Your task to perform on an android device: change the clock display to analog Image 0: 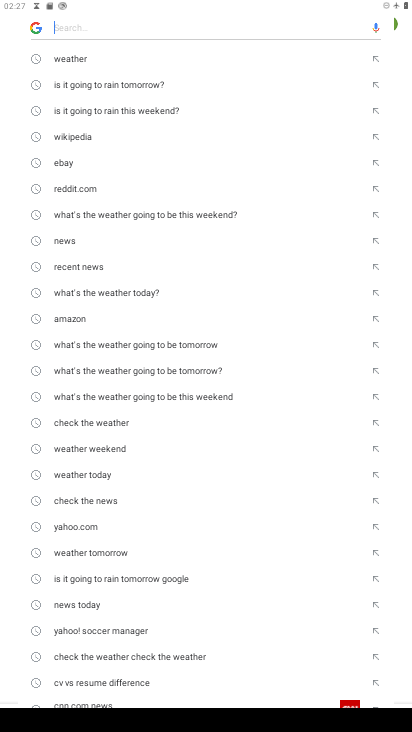
Step 0: press home button
Your task to perform on an android device: change the clock display to analog Image 1: 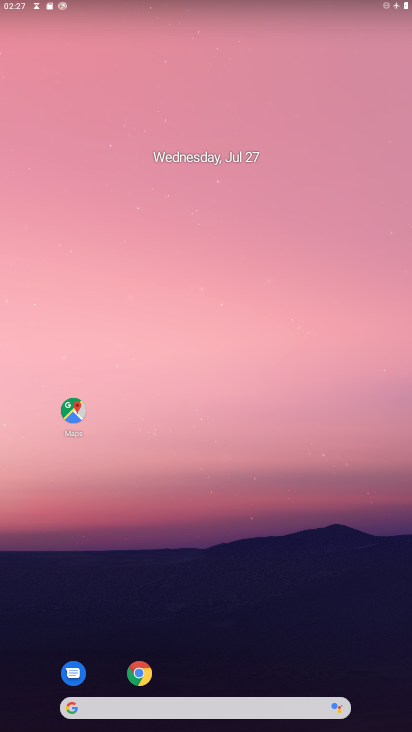
Step 1: drag from (171, 618) to (191, 159)
Your task to perform on an android device: change the clock display to analog Image 2: 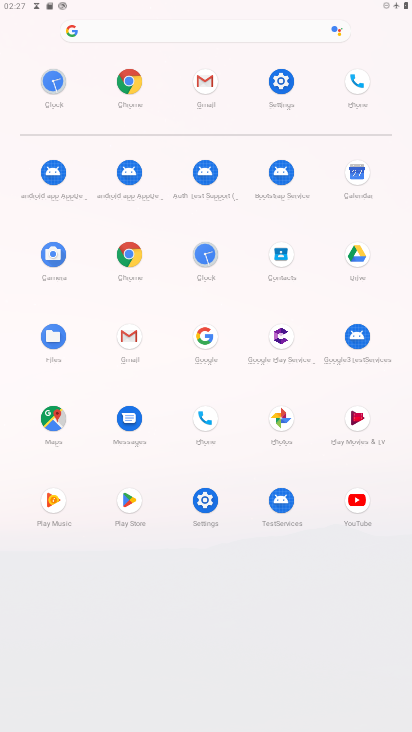
Step 2: click (193, 250)
Your task to perform on an android device: change the clock display to analog Image 3: 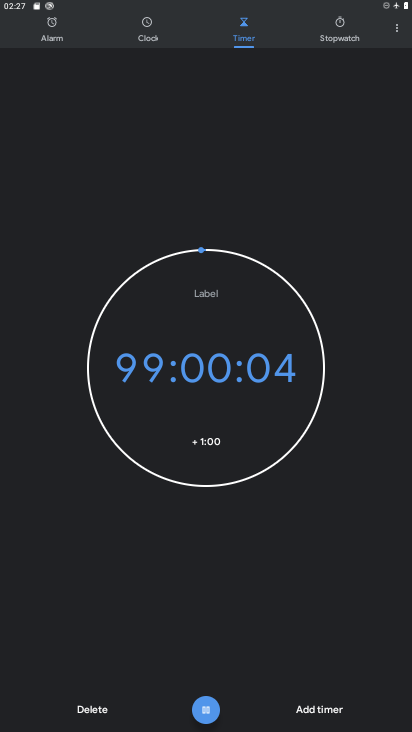
Step 3: click (409, 22)
Your task to perform on an android device: change the clock display to analog Image 4: 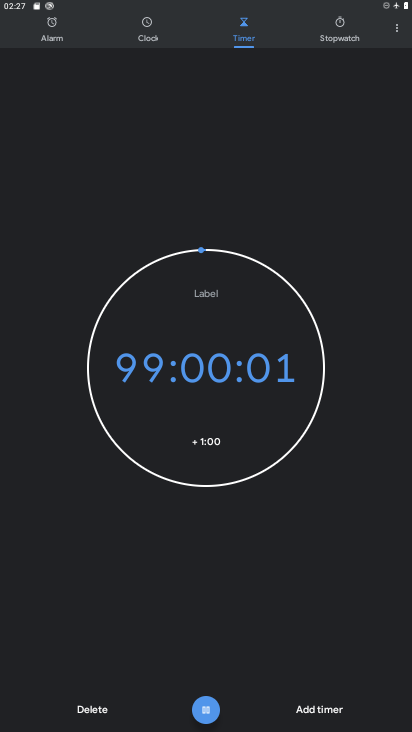
Step 4: click (398, 29)
Your task to perform on an android device: change the clock display to analog Image 5: 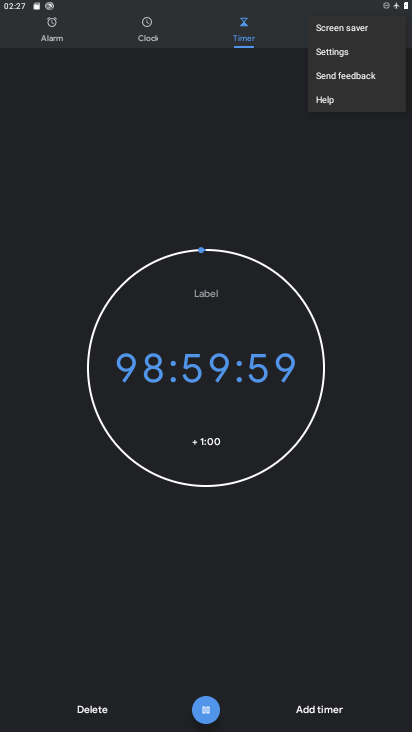
Step 5: click (331, 53)
Your task to perform on an android device: change the clock display to analog Image 6: 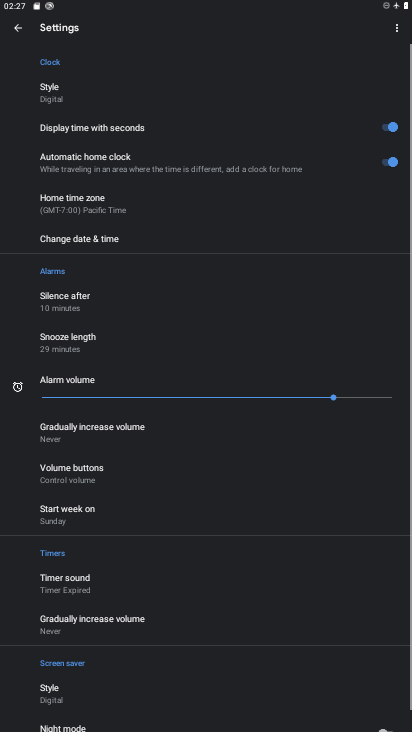
Step 6: click (65, 102)
Your task to perform on an android device: change the clock display to analog Image 7: 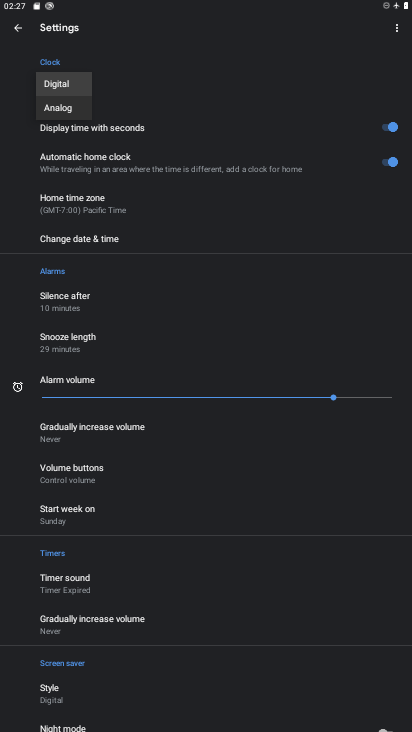
Step 7: click (67, 108)
Your task to perform on an android device: change the clock display to analog Image 8: 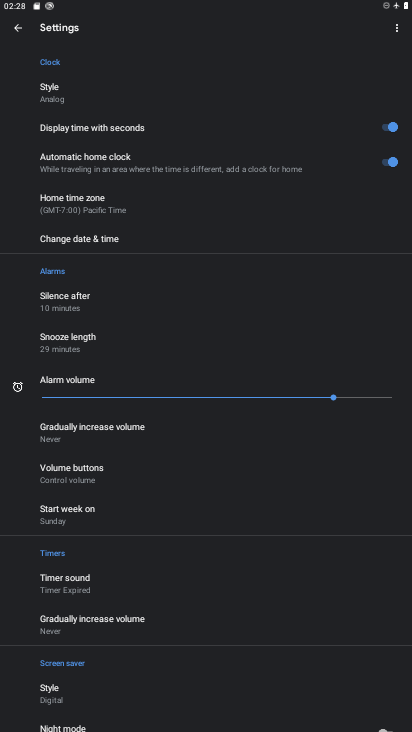
Step 8: task complete